Your task to perform on an android device: Open calendar and show me the first week of next month Image 0: 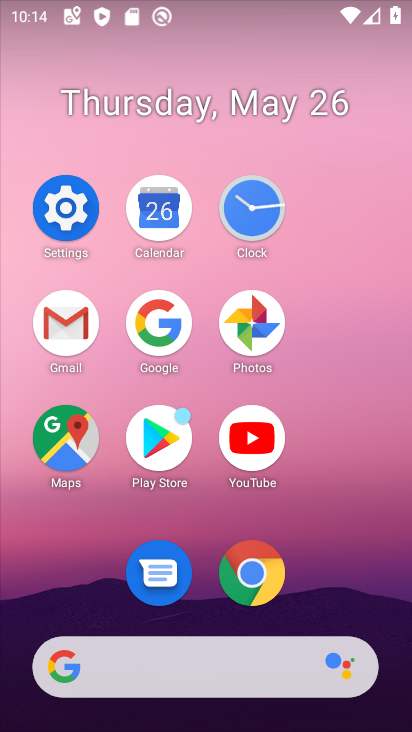
Step 0: click (167, 186)
Your task to perform on an android device: Open calendar and show me the first week of next month Image 1: 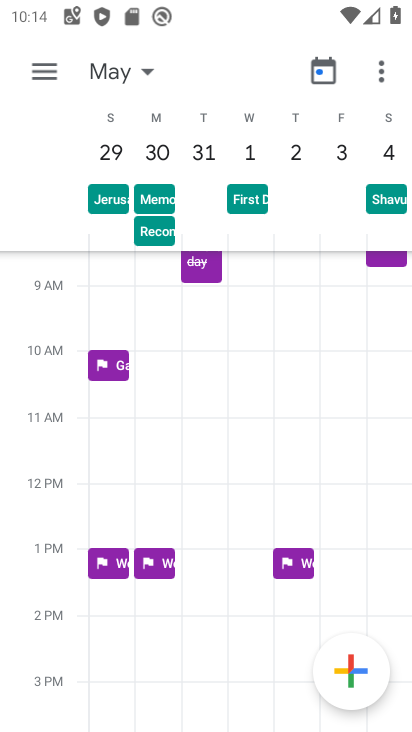
Step 1: click (106, 92)
Your task to perform on an android device: Open calendar and show me the first week of next month Image 2: 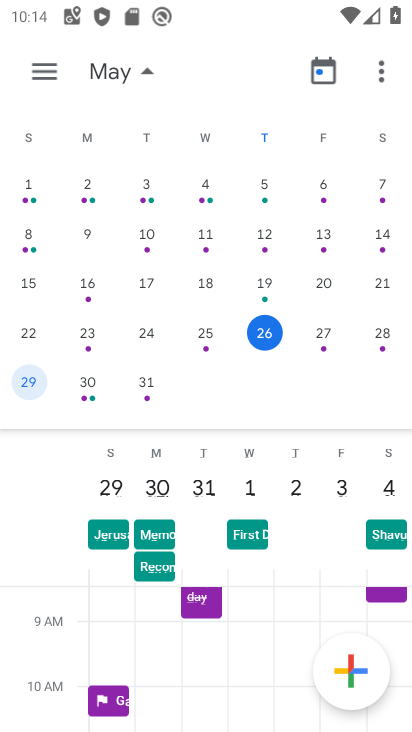
Step 2: drag from (301, 258) to (39, 295)
Your task to perform on an android device: Open calendar and show me the first week of next month Image 3: 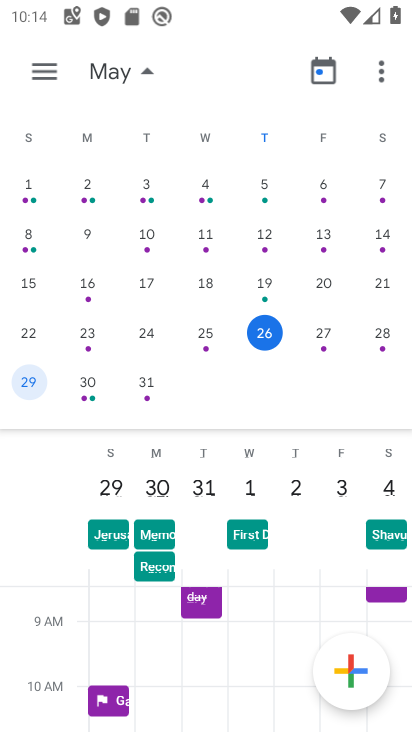
Step 3: drag from (368, 258) to (1, 189)
Your task to perform on an android device: Open calendar and show me the first week of next month Image 4: 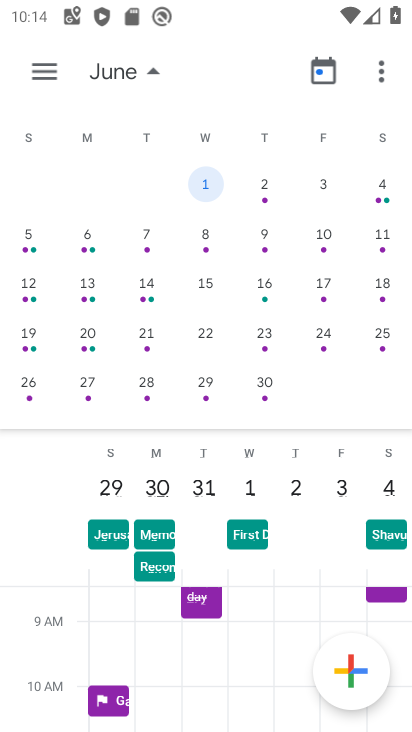
Step 4: click (43, 72)
Your task to perform on an android device: Open calendar and show me the first week of next month Image 5: 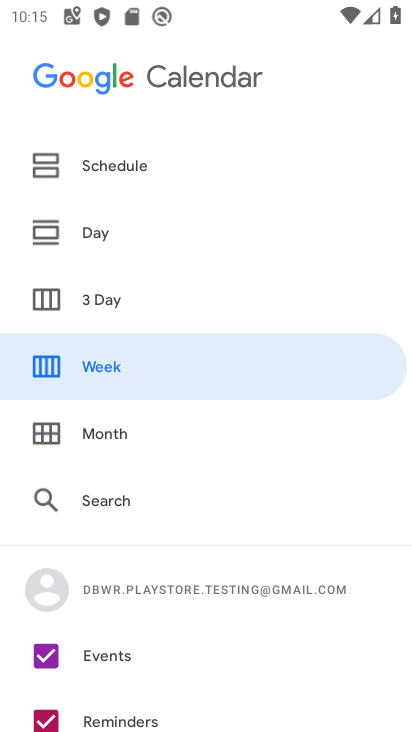
Step 5: click (152, 368)
Your task to perform on an android device: Open calendar and show me the first week of next month Image 6: 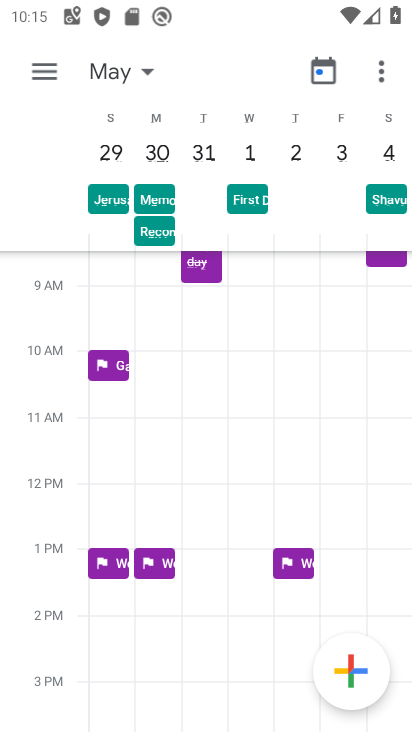
Step 6: task complete